Your task to perform on an android device: Go to network settings Image 0: 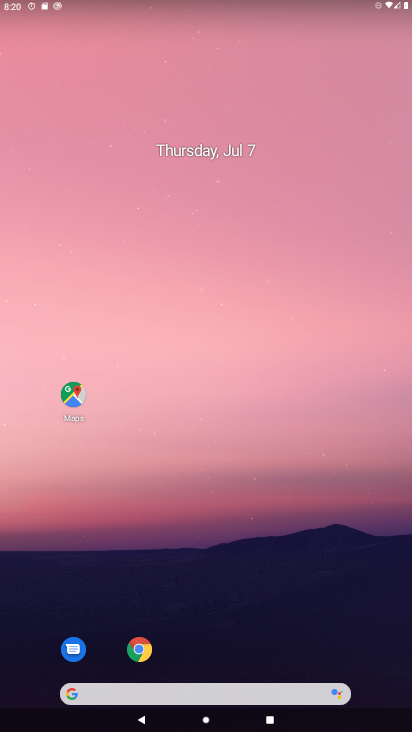
Step 0: drag from (238, 637) to (295, 175)
Your task to perform on an android device: Go to network settings Image 1: 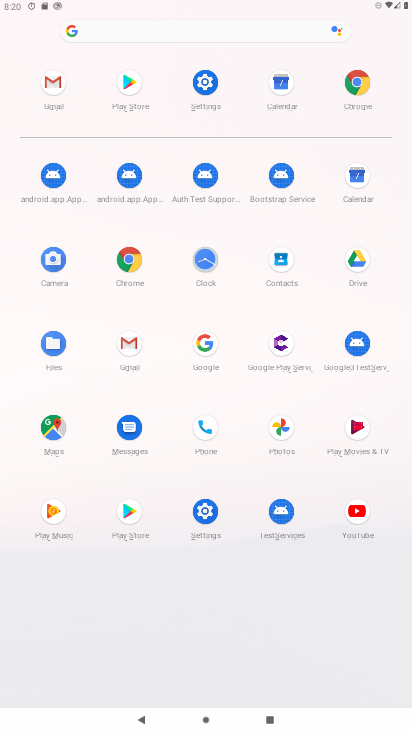
Step 1: click (203, 81)
Your task to perform on an android device: Go to network settings Image 2: 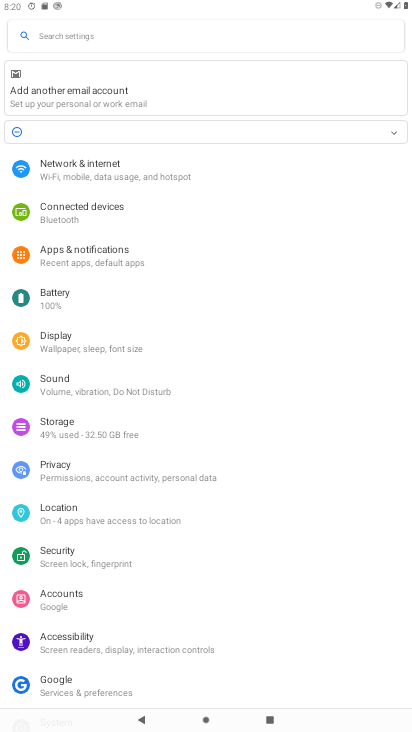
Step 2: click (141, 167)
Your task to perform on an android device: Go to network settings Image 3: 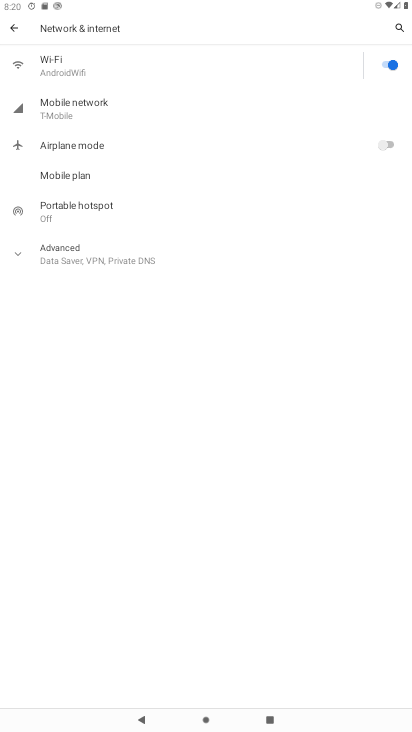
Step 3: click (61, 257)
Your task to perform on an android device: Go to network settings Image 4: 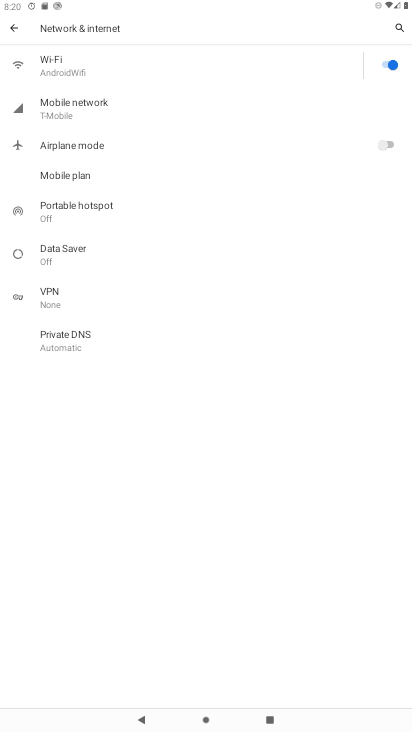
Step 4: task complete